Your task to perform on an android device: open chrome privacy settings Image 0: 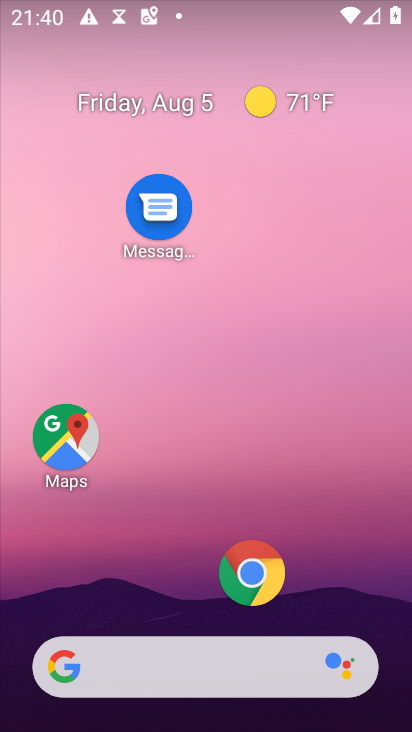
Step 0: press home button
Your task to perform on an android device: open chrome privacy settings Image 1: 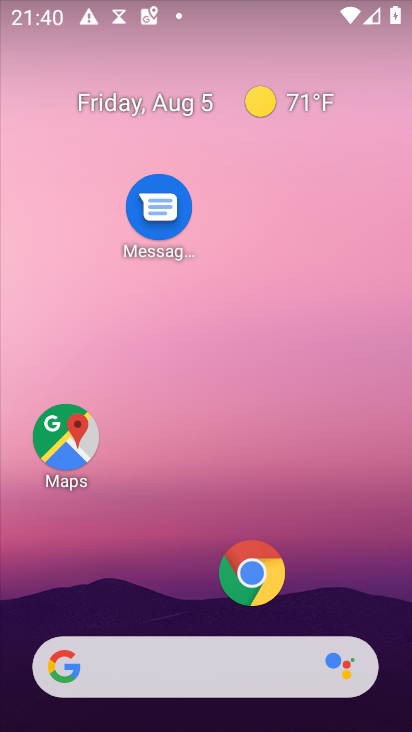
Step 1: click (254, 570)
Your task to perform on an android device: open chrome privacy settings Image 2: 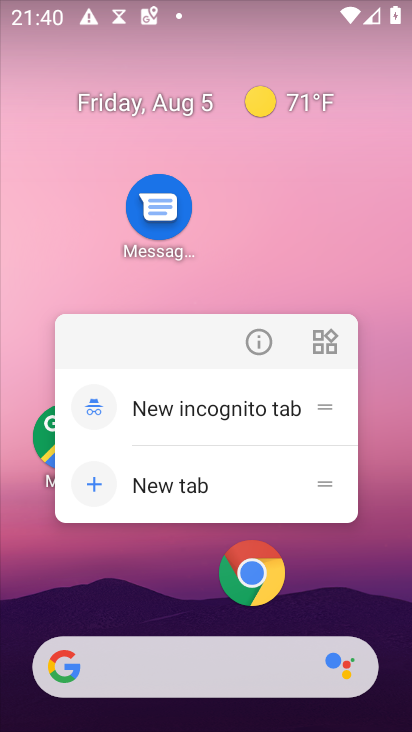
Step 2: click (332, 581)
Your task to perform on an android device: open chrome privacy settings Image 3: 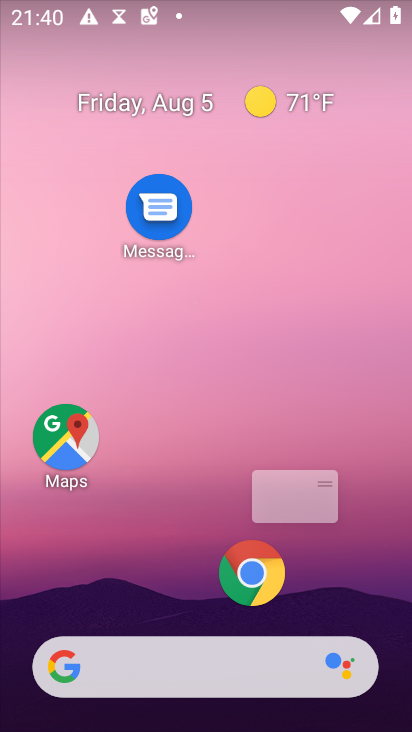
Step 3: drag from (347, 601) to (371, 233)
Your task to perform on an android device: open chrome privacy settings Image 4: 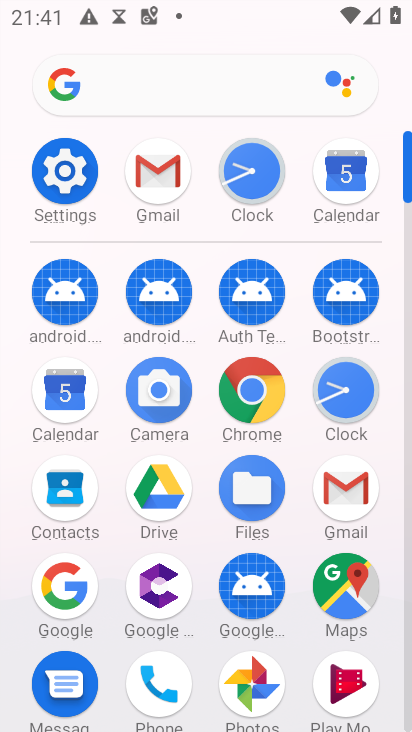
Step 4: click (251, 382)
Your task to perform on an android device: open chrome privacy settings Image 5: 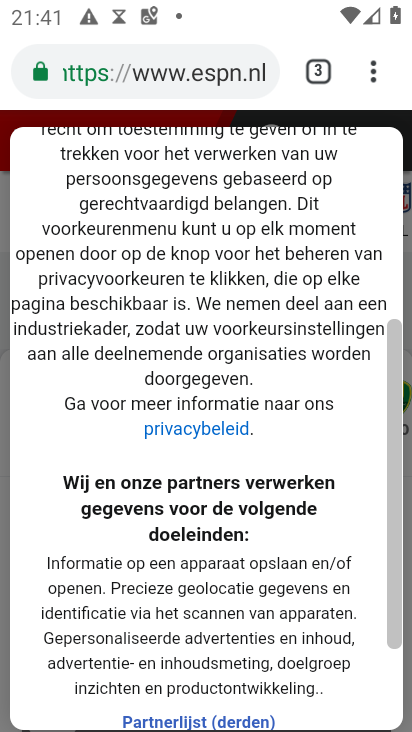
Step 5: drag from (197, 666) to (208, 251)
Your task to perform on an android device: open chrome privacy settings Image 6: 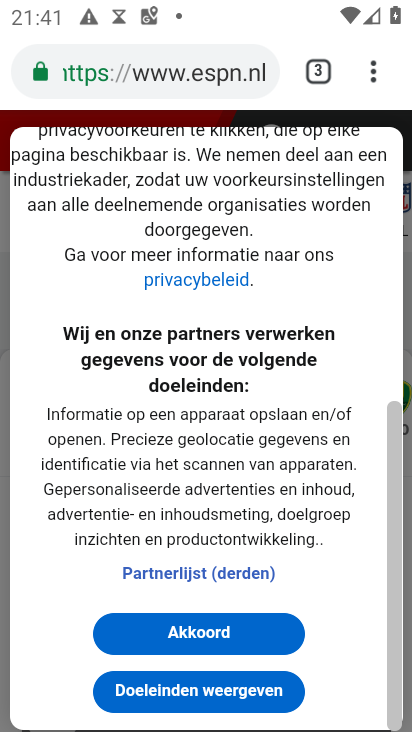
Step 6: click (202, 628)
Your task to perform on an android device: open chrome privacy settings Image 7: 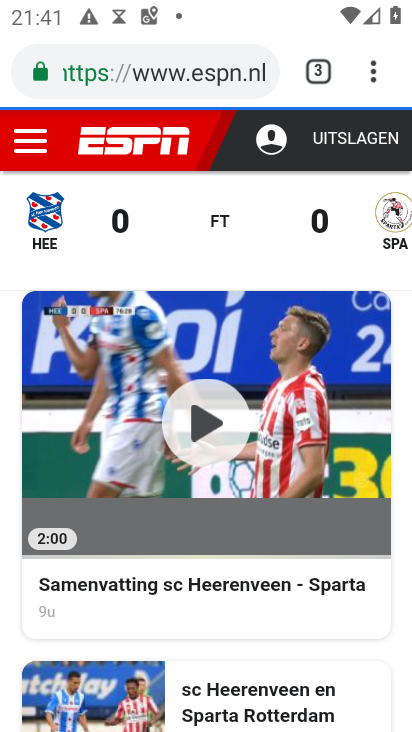
Step 7: click (371, 72)
Your task to perform on an android device: open chrome privacy settings Image 8: 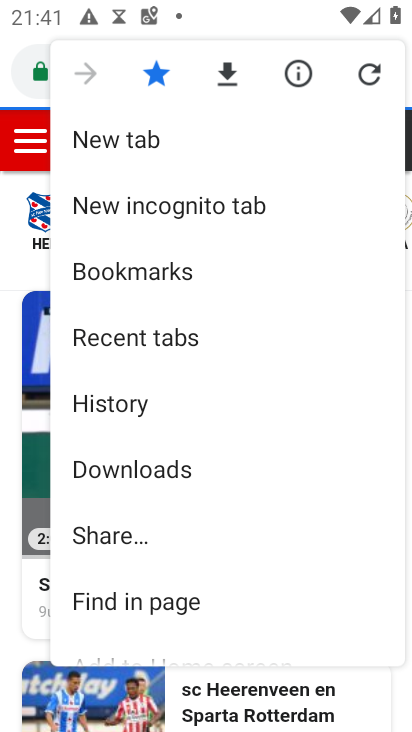
Step 8: drag from (218, 583) to (235, 166)
Your task to perform on an android device: open chrome privacy settings Image 9: 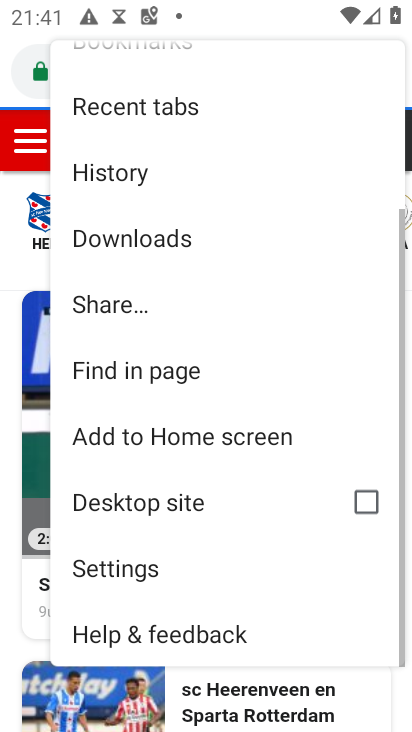
Step 9: click (164, 573)
Your task to perform on an android device: open chrome privacy settings Image 10: 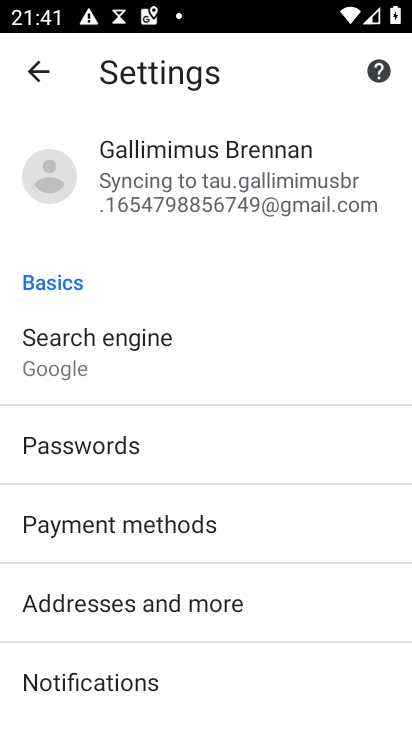
Step 10: drag from (229, 673) to (262, 165)
Your task to perform on an android device: open chrome privacy settings Image 11: 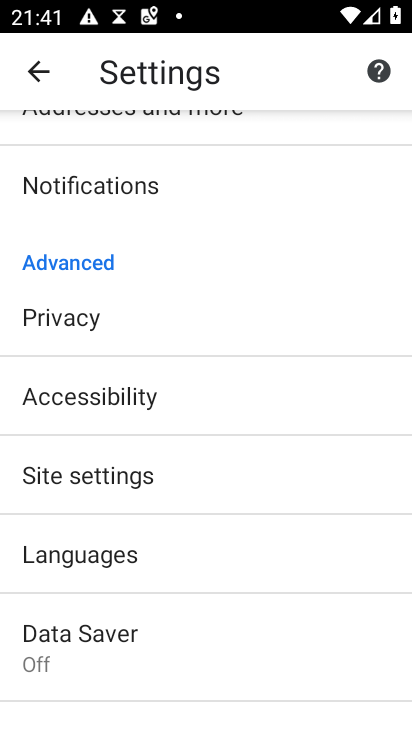
Step 11: click (120, 323)
Your task to perform on an android device: open chrome privacy settings Image 12: 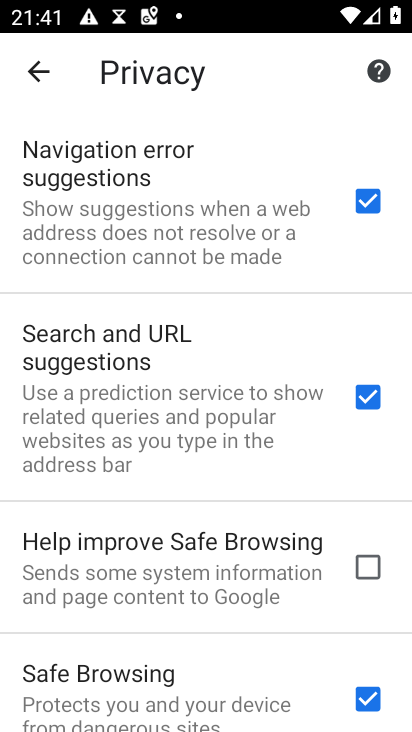
Step 12: task complete